Your task to perform on an android device: change the clock display to show seconds Image 0: 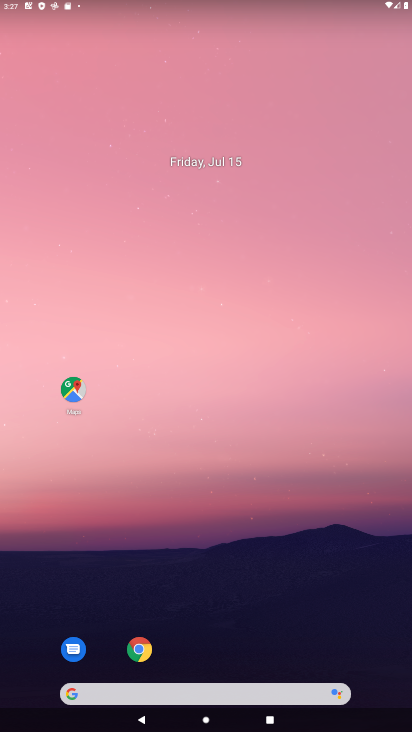
Step 0: drag from (321, 598) to (257, 2)
Your task to perform on an android device: change the clock display to show seconds Image 1: 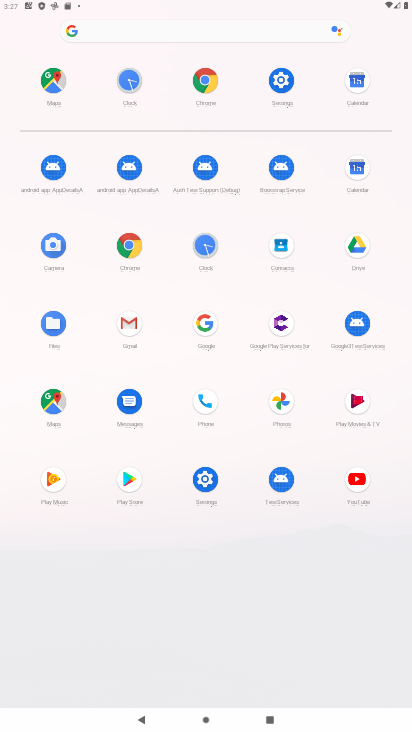
Step 1: click (202, 244)
Your task to perform on an android device: change the clock display to show seconds Image 2: 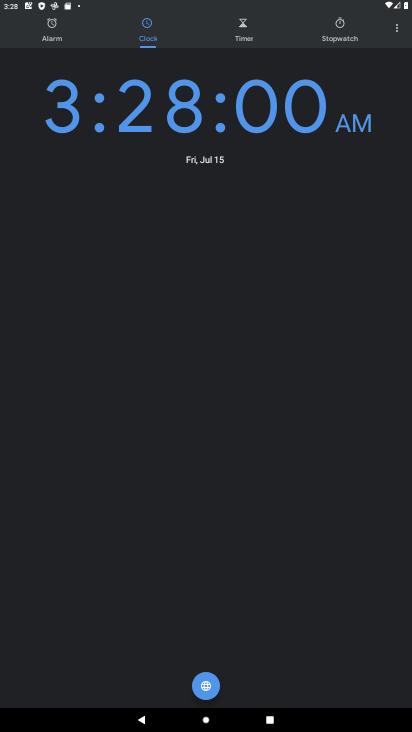
Step 2: click (396, 26)
Your task to perform on an android device: change the clock display to show seconds Image 3: 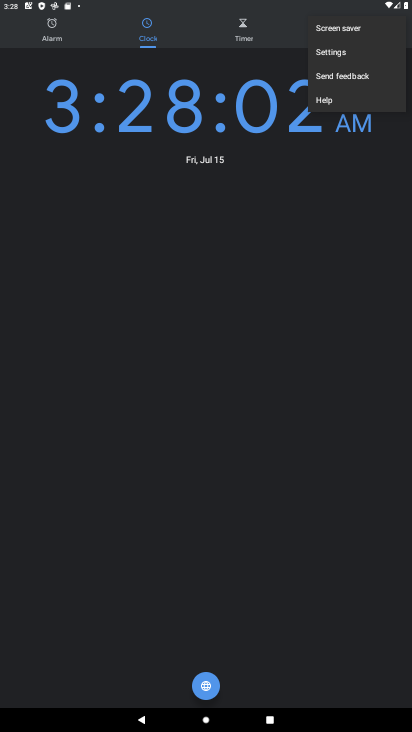
Step 3: click (322, 53)
Your task to perform on an android device: change the clock display to show seconds Image 4: 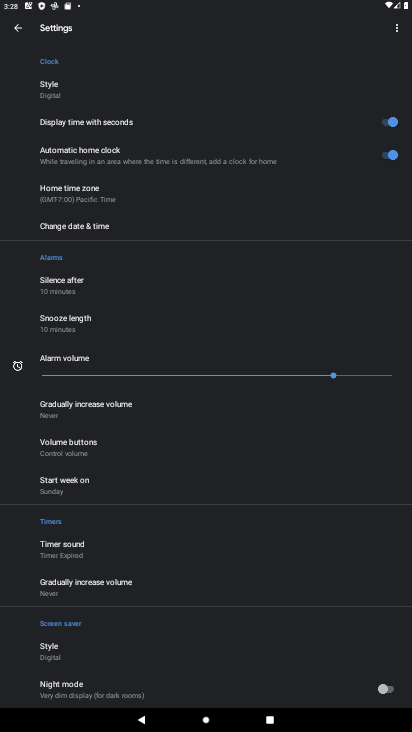
Step 4: task complete